Your task to perform on an android device: Open the web browser Image 0: 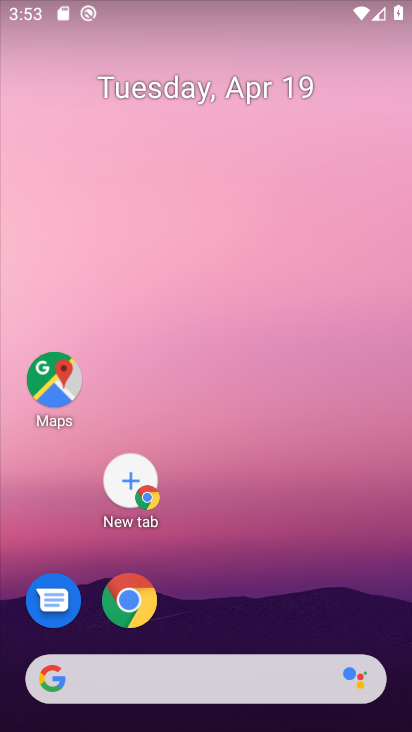
Step 0: click (123, 673)
Your task to perform on an android device: Open the web browser Image 1: 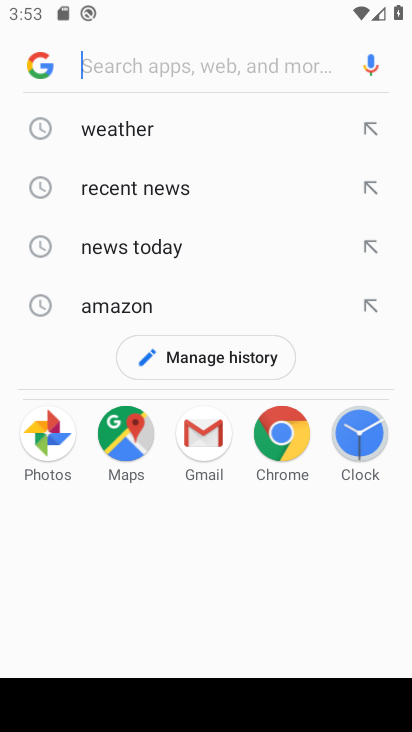
Step 1: task complete